Your task to perform on an android device: open the mobile data screen to see how much data has been used Image 0: 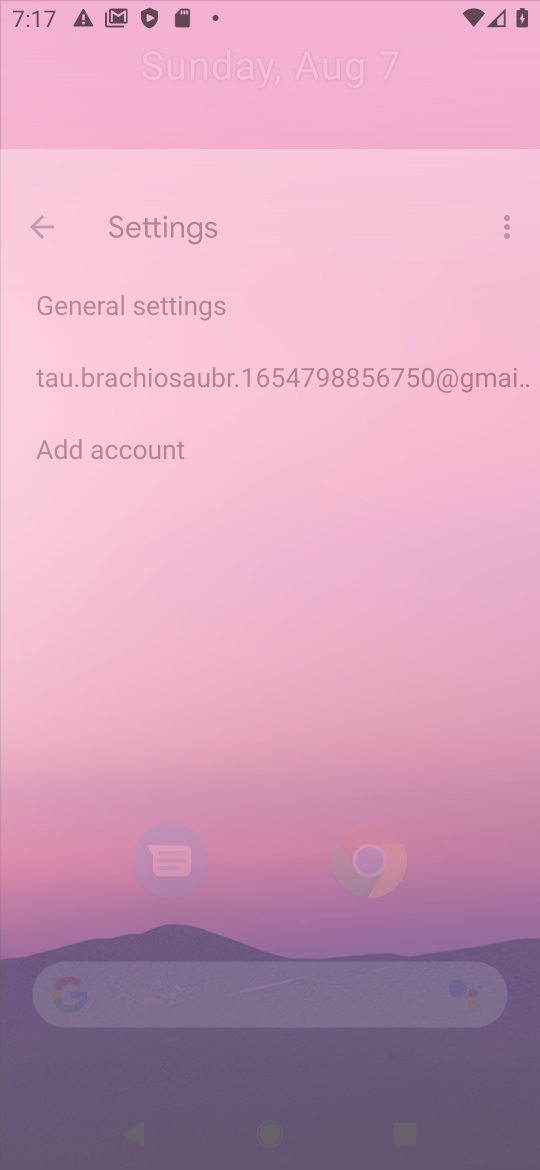
Step 0: press home button
Your task to perform on an android device: open the mobile data screen to see how much data has been used Image 1: 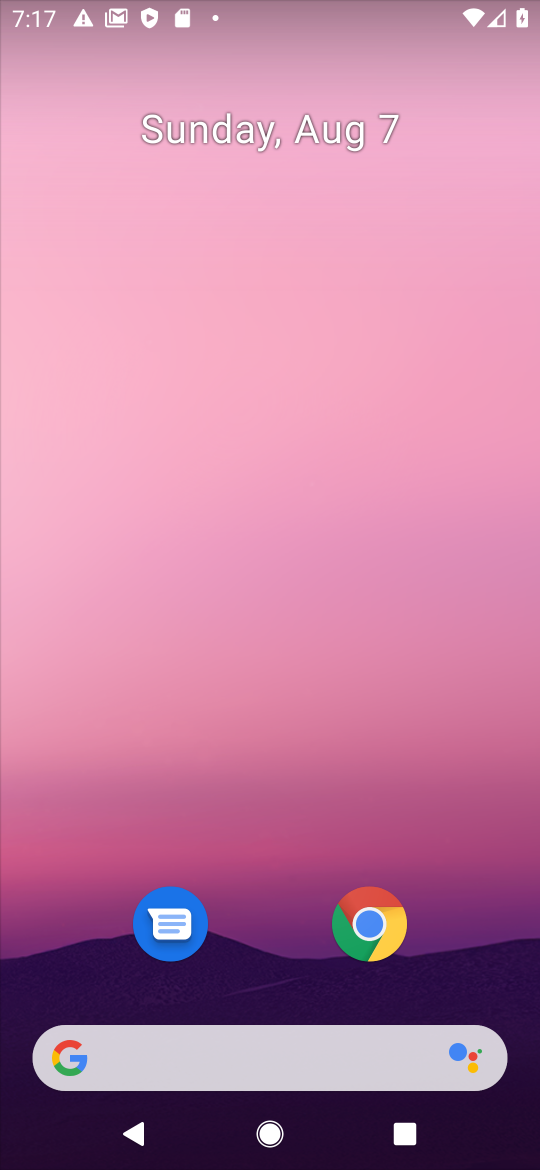
Step 1: drag from (300, 1104) to (356, 182)
Your task to perform on an android device: open the mobile data screen to see how much data has been used Image 2: 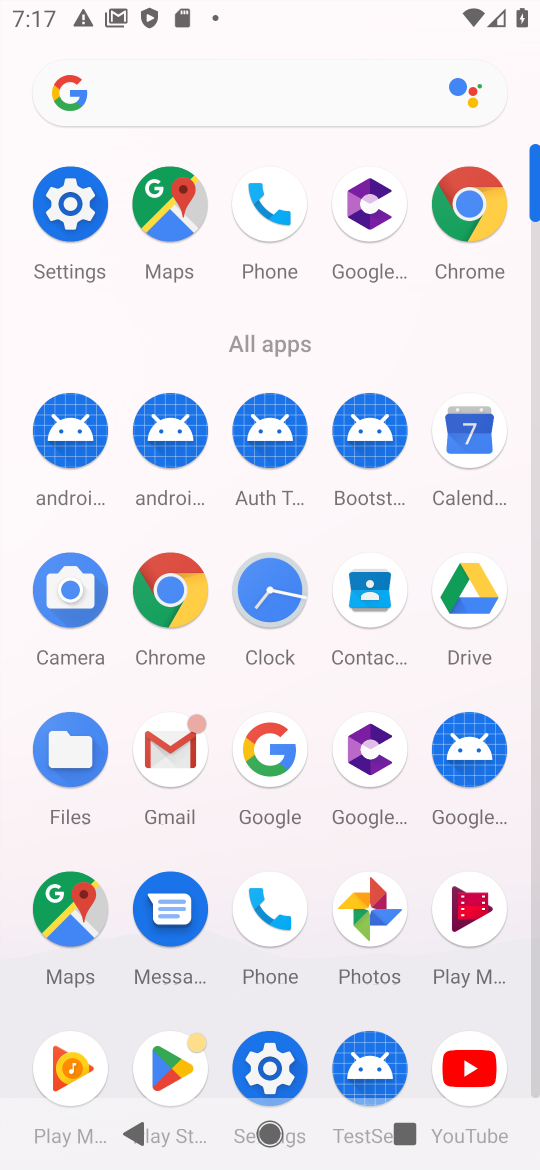
Step 2: click (77, 204)
Your task to perform on an android device: open the mobile data screen to see how much data has been used Image 3: 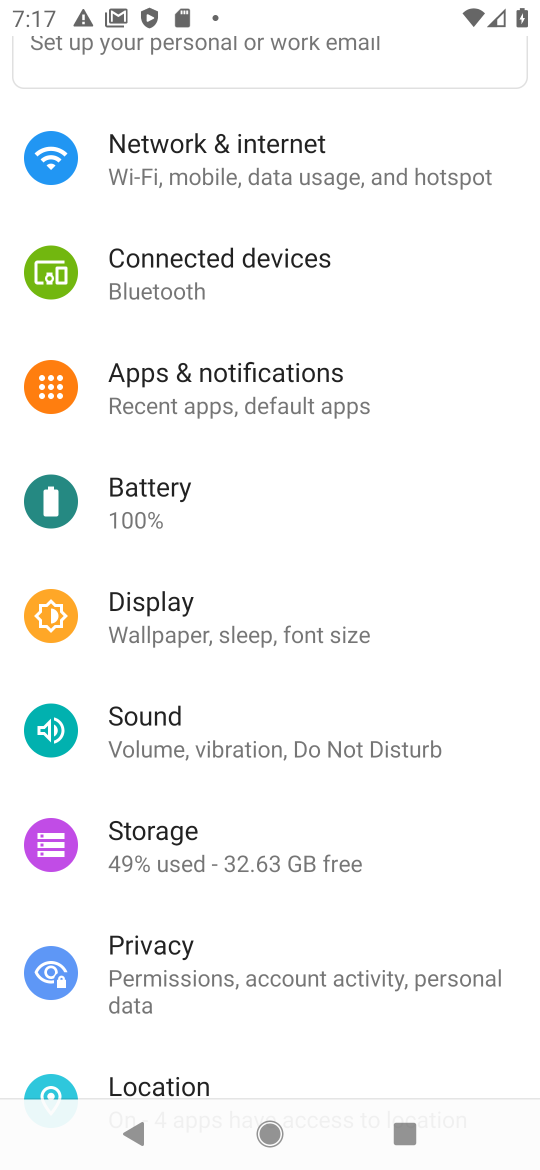
Step 3: drag from (195, 130) to (212, 275)
Your task to perform on an android device: open the mobile data screen to see how much data has been used Image 4: 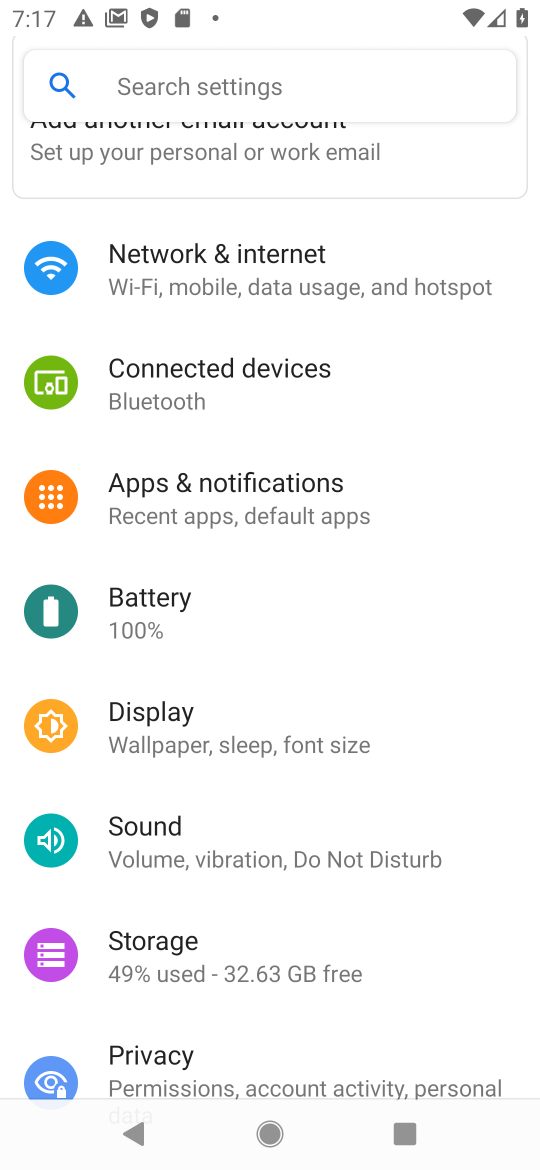
Step 4: click (161, 84)
Your task to perform on an android device: open the mobile data screen to see how much data has been used Image 5: 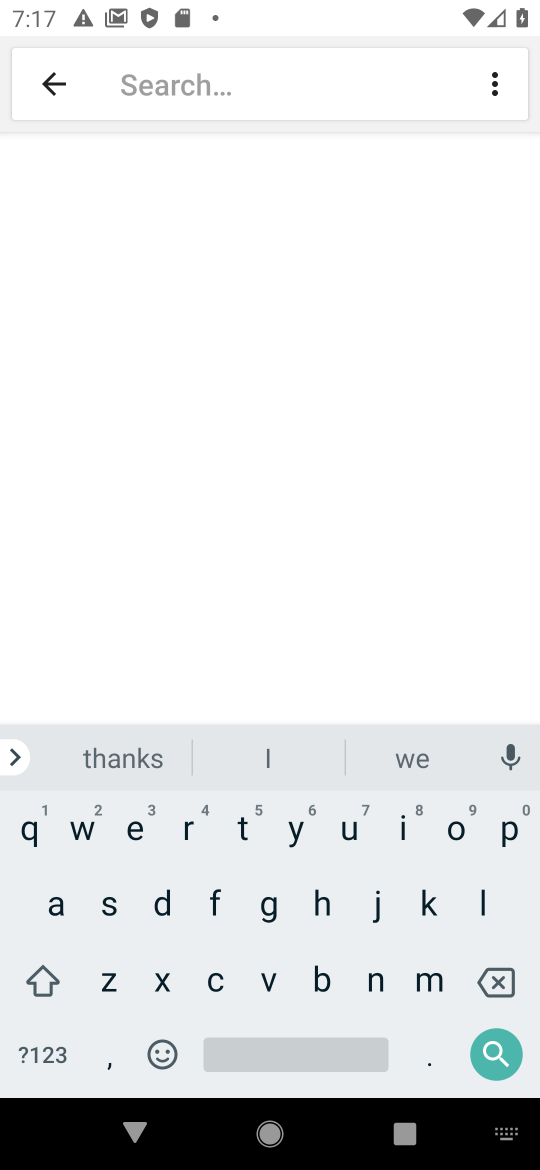
Step 5: click (151, 911)
Your task to perform on an android device: open the mobile data screen to see how much data has been used Image 6: 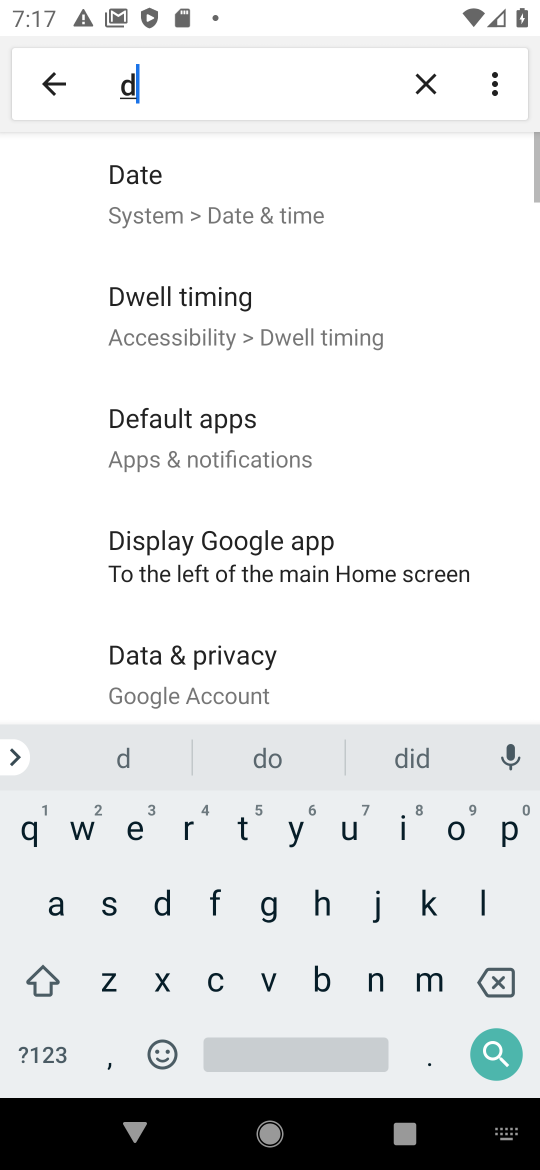
Step 6: click (52, 908)
Your task to perform on an android device: open the mobile data screen to see how much data has been used Image 7: 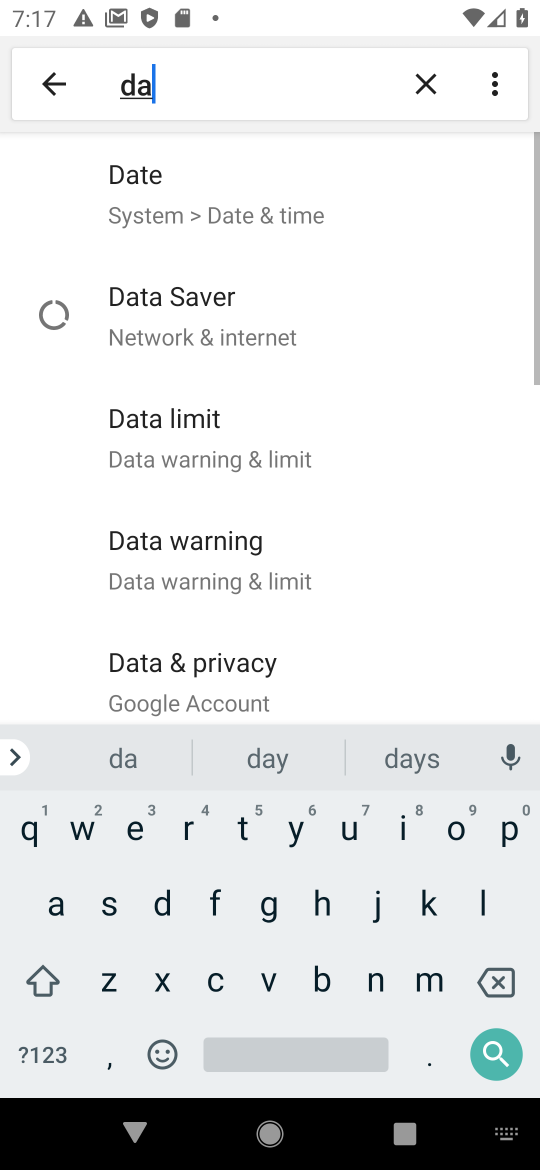
Step 7: click (242, 827)
Your task to perform on an android device: open the mobile data screen to see how much data has been used Image 8: 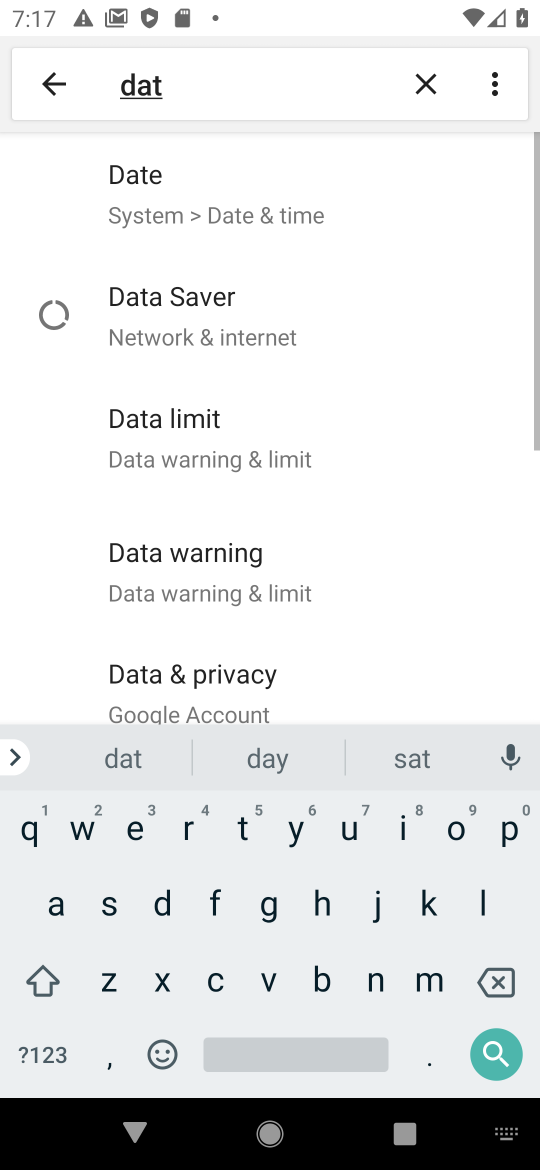
Step 8: click (57, 892)
Your task to perform on an android device: open the mobile data screen to see how much data has been used Image 9: 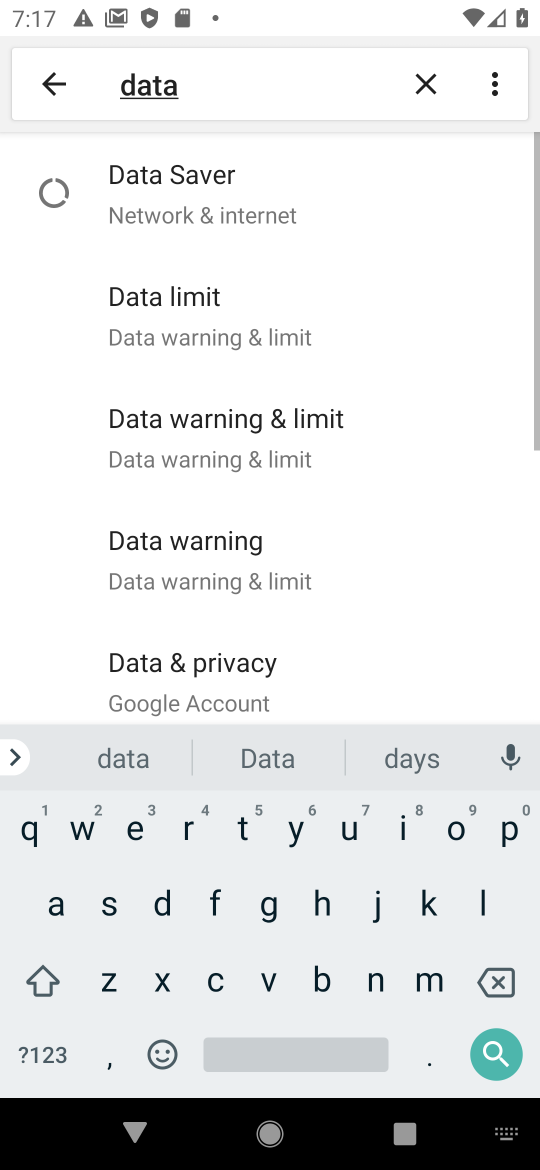
Step 9: click (278, 1045)
Your task to perform on an android device: open the mobile data screen to see how much data has been used Image 10: 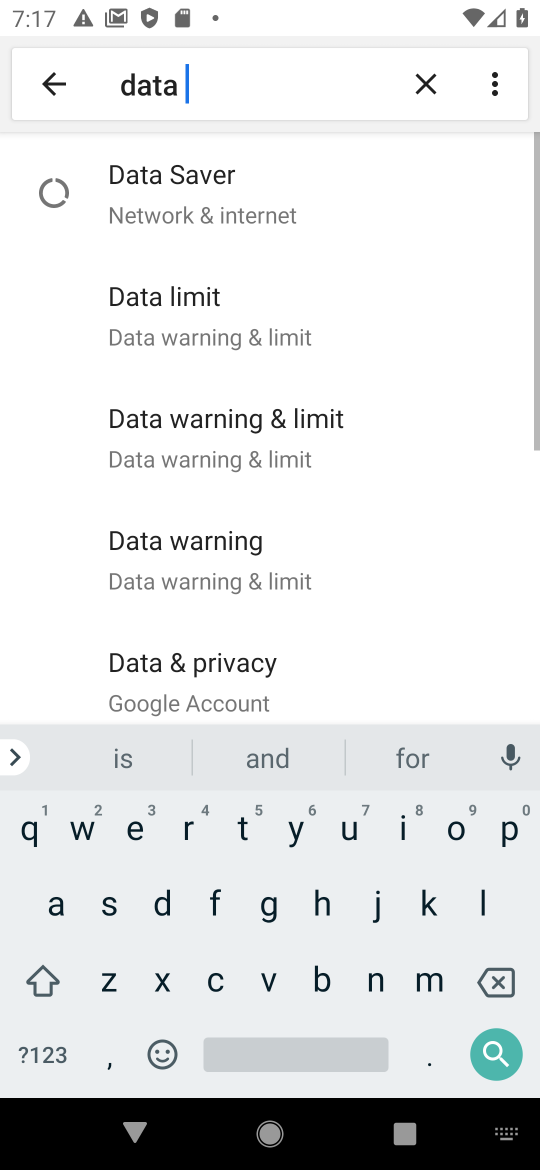
Step 10: click (346, 828)
Your task to perform on an android device: open the mobile data screen to see how much data has been used Image 11: 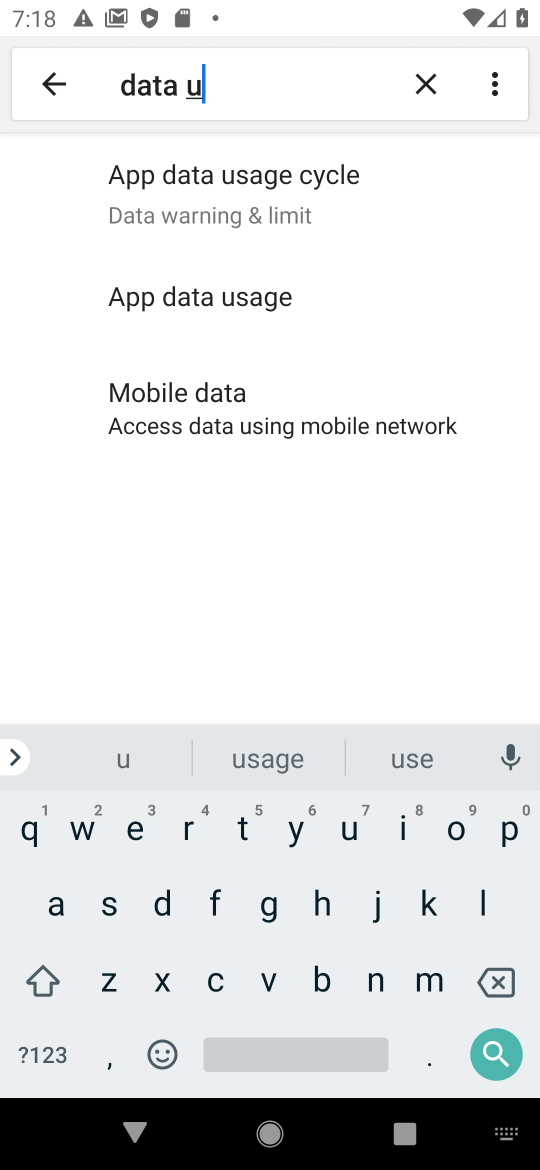
Step 11: click (219, 299)
Your task to perform on an android device: open the mobile data screen to see how much data has been used Image 12: 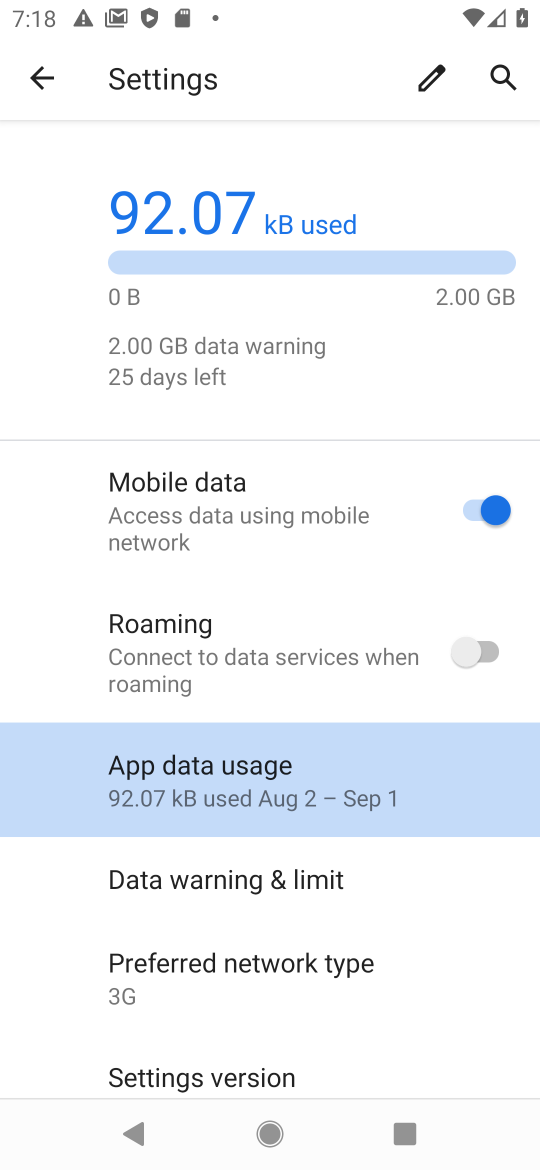
Step 12: click (199, 777)
Your task to perform on an android device: open the mobile data screen to see how much data has been used Image 13: 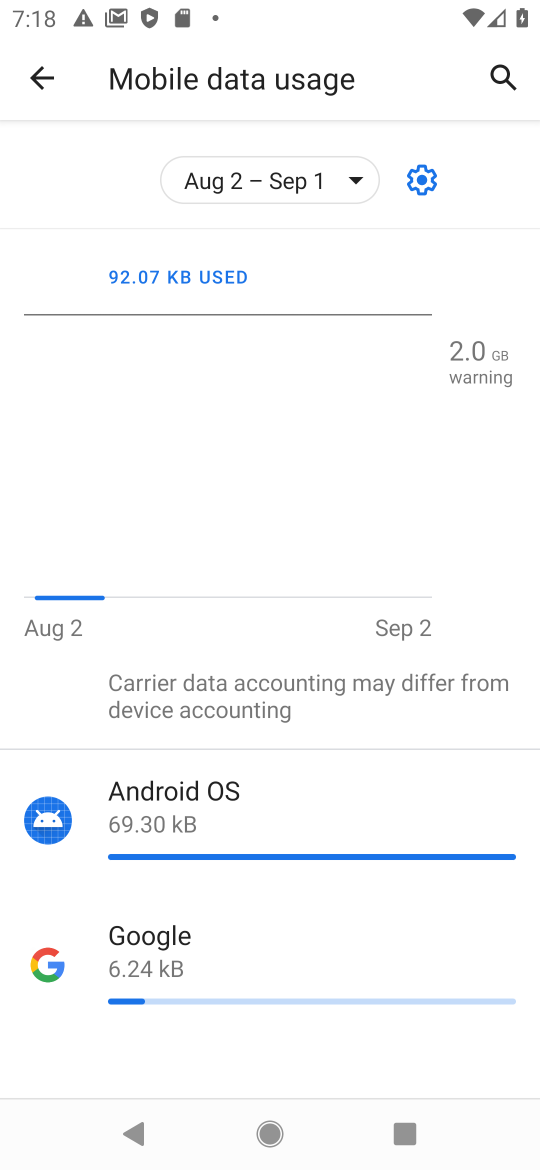
Step 13: task complete